Your task to perform on an android device: Open maps Image 0: 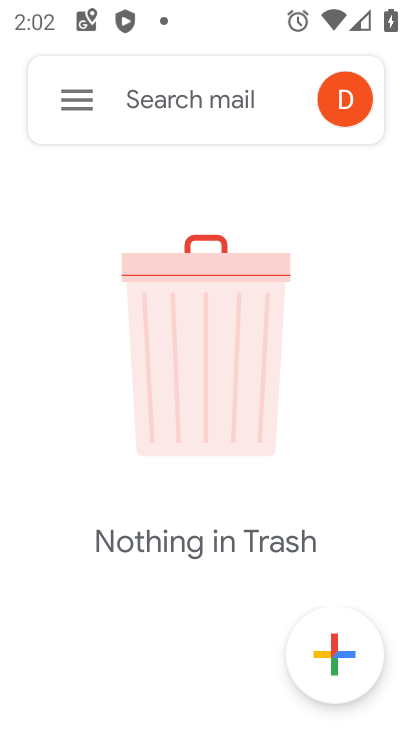
Step 0: press home button
Your task to perform on an android device: Open maps Image 1: 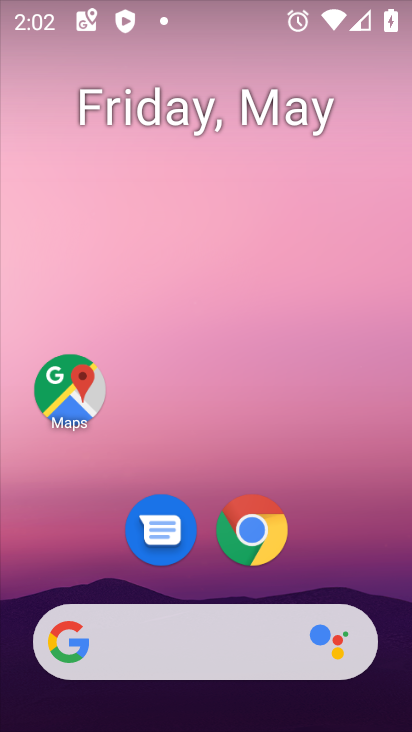
Step 1: click (62, 397)
Your task to perform on an android device: Open maps Image 2: 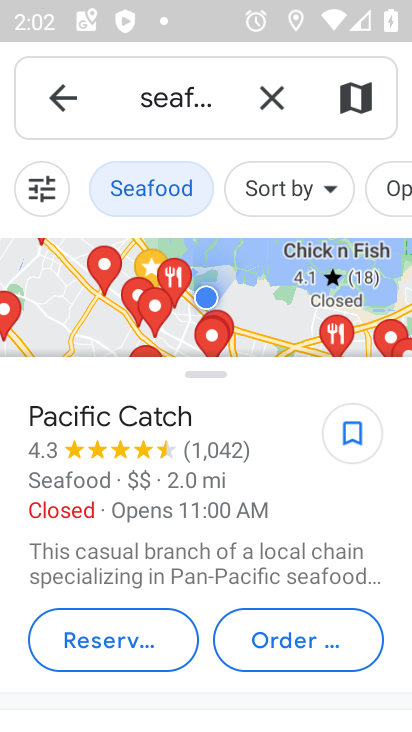
Step 2: click (70, 104)
Your task to perform on an android device: Open maps Image 3: 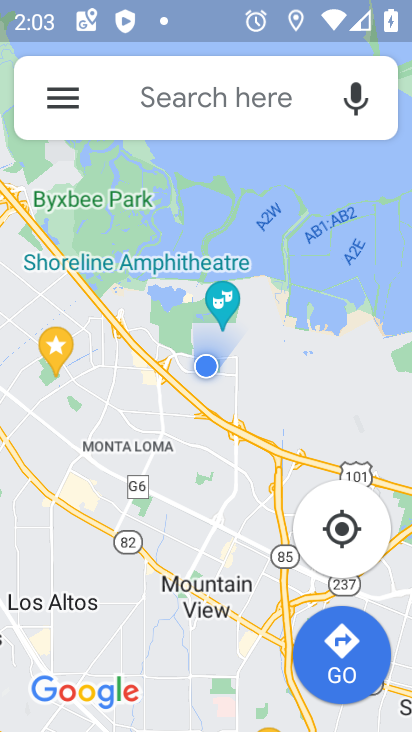
Step 3: task complete